Your task to perform on an android device: find photos in the google photos app Image 0: 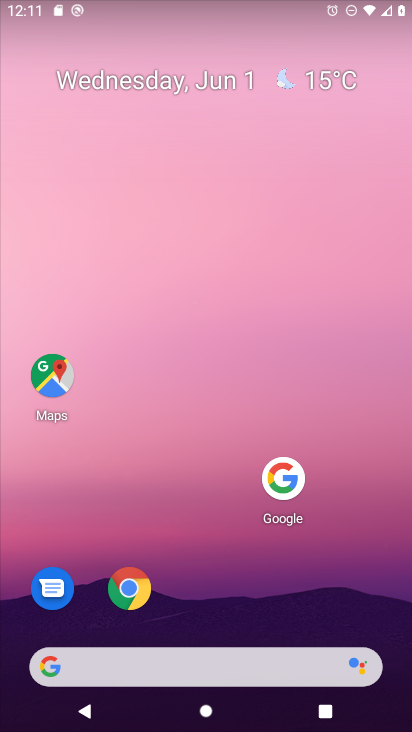
Step 0: press home button
Your task to perform on an android device: find photos in the google photos app Image 1: 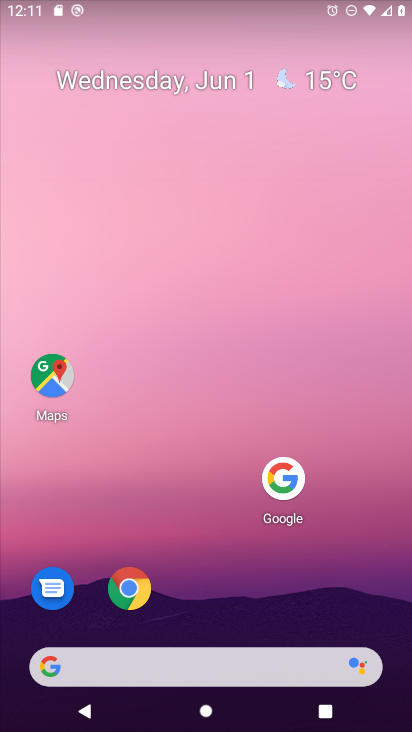
Step 1: drag from (164, 661) to (311, 159)
Your task to perform on an android device: find photos in the google photos app Image 2: 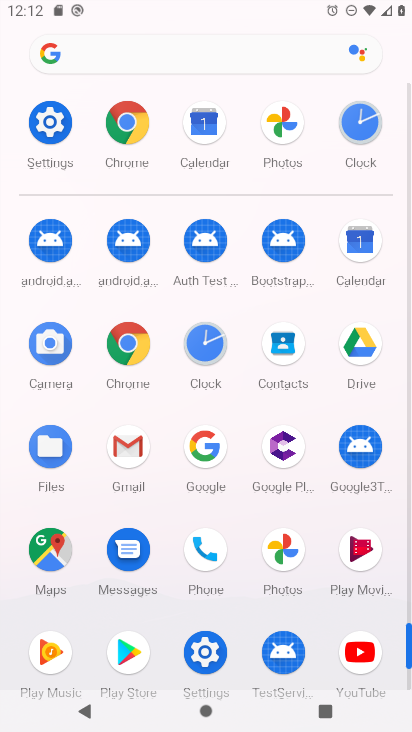
Step 2: click (286, 547)
Your task to perform on an android device: find photos in the google photos app Image 3: 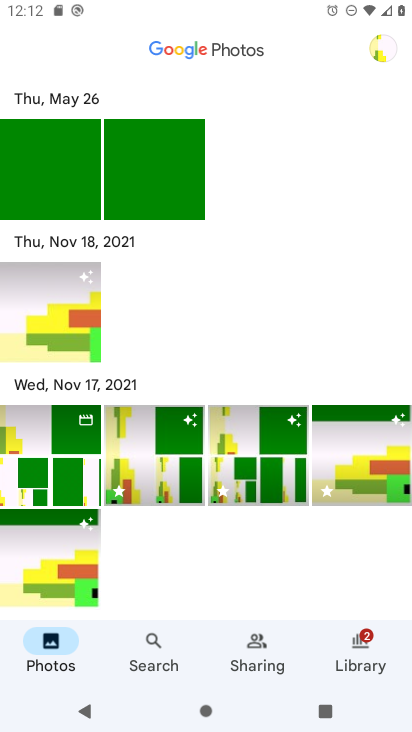
Step 3: task complete